Your task to perform on an android device: Open Wikipedia Image 0: 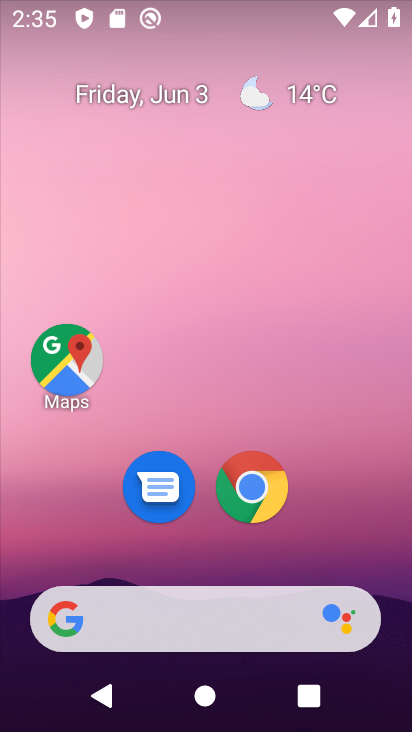
Step 0: click (217, 479)
Your task to perform on an android device: Open Wikipedia Image 1: 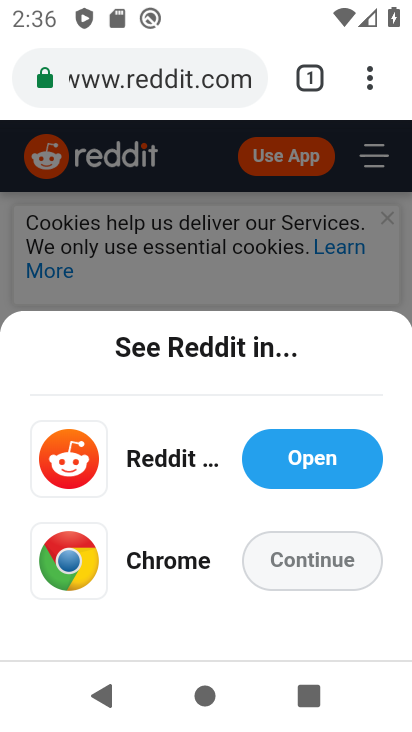
Step 1: click (313, 69)
Your task to perform on an android device: Open Wikipedia Image 2: 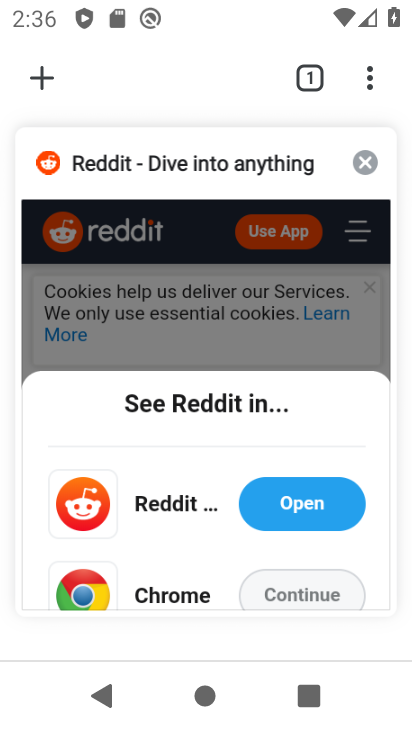
Step 2: click (14, 76)
Your task to perform on an android device: Open Wikipedia Image 3: 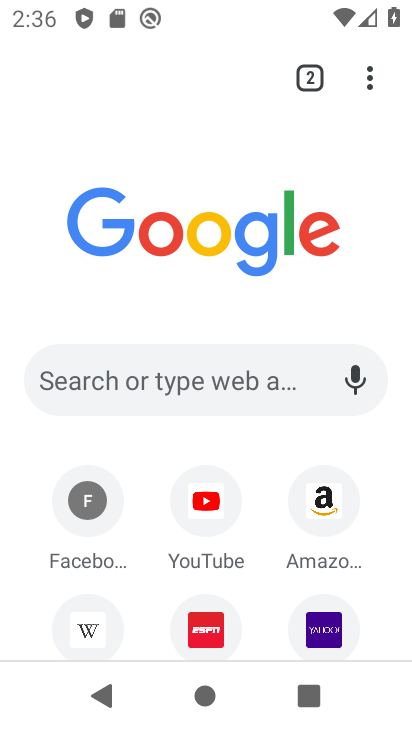
Step 3: click (75, 631)
Your task to perform on an android device: Open Wikipedia Image 4: 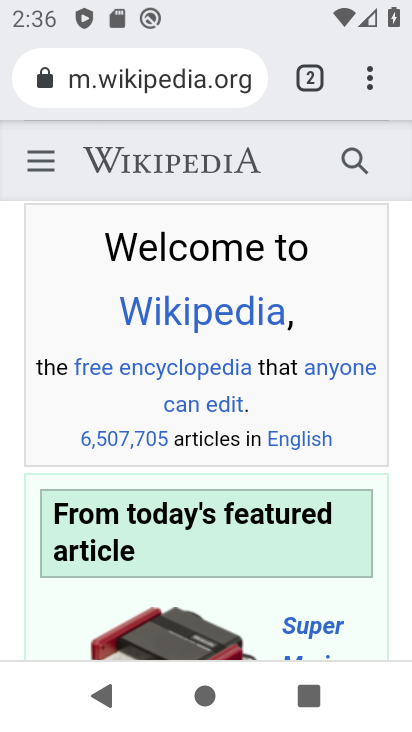
Step 4: task complete